Your task to perform on an android device: Turn off the flashlight Image 0: 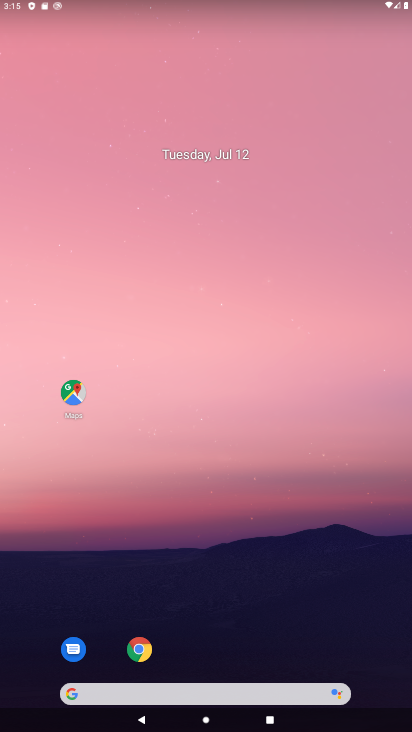
Step 0: drag from (213, 653) to (188, 161)
Your task to perform on an android device: Turn off the flashlight Image 1: 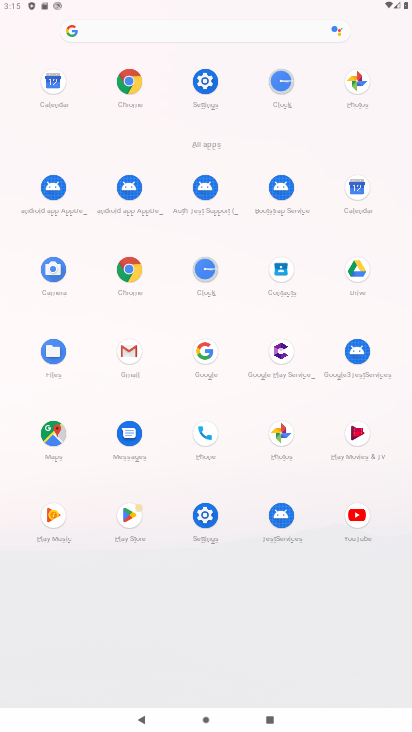
Step 1: click (200, 75)
Your task to perform on an android device: Turn off the flashlight Image 2: 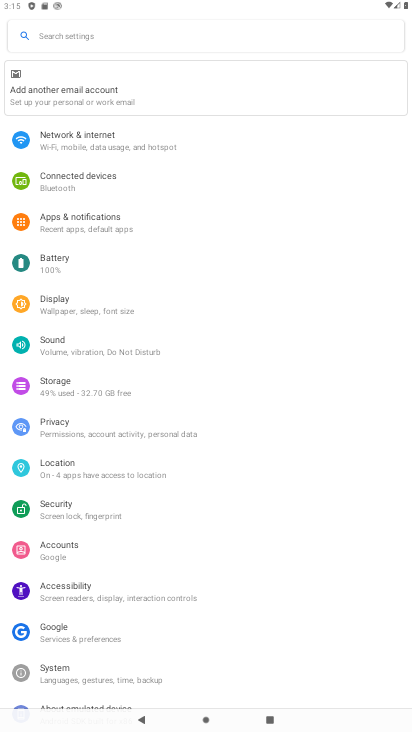
Step 2: click (83, 31)
Your task to perform on an android device: Turn off the flashlight Image 3: 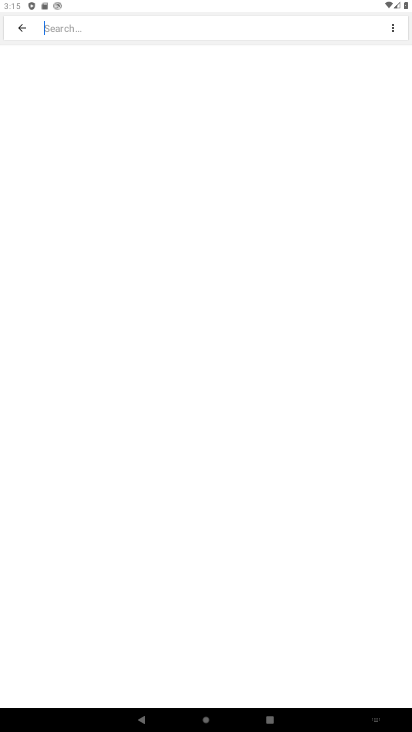
Step 3: type "flashlight"
Your task to perform on an android device: Turn off the flashlight Image 4: 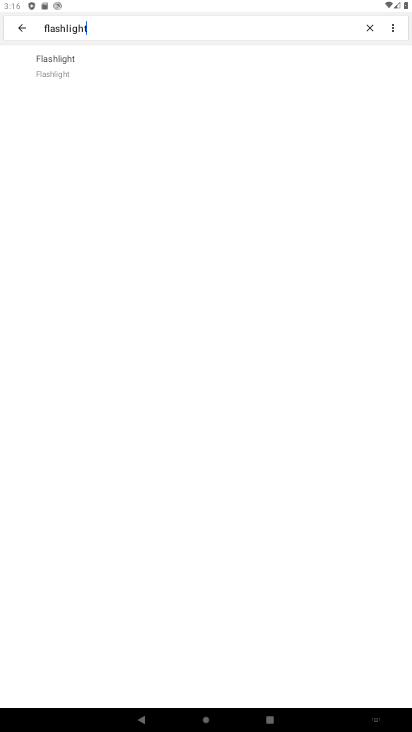
Step 4: click (68, 64)
Your task to perform on an android device: Turn off the flashlight Image 5: 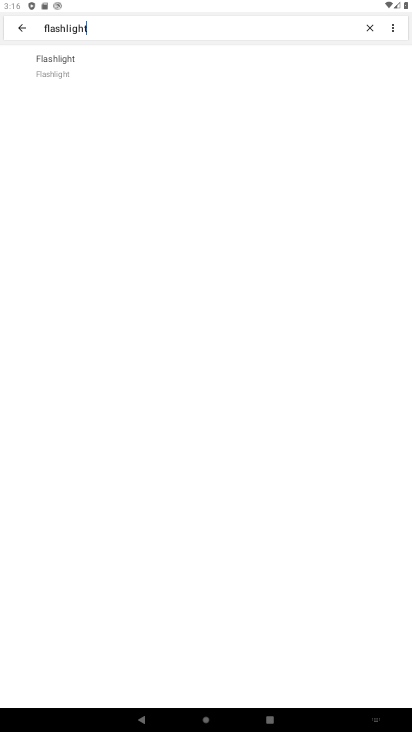
Step 5: click (68, 64)
Your task to perform on an android device: Turn off the flashlight Image 6: 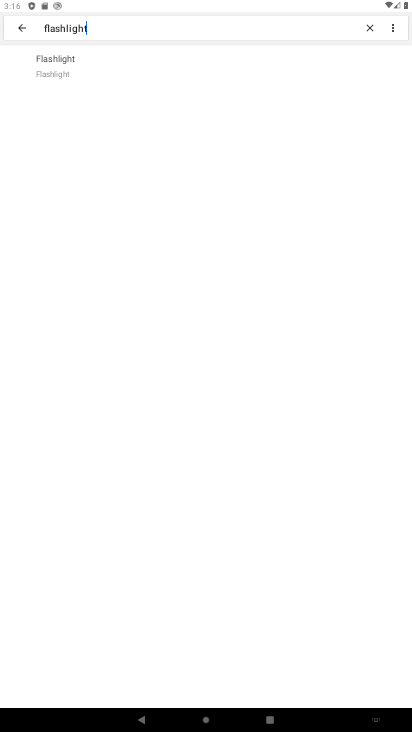
Step 6: task complete